Your task to perform on an android device: See recent photos Image 0: 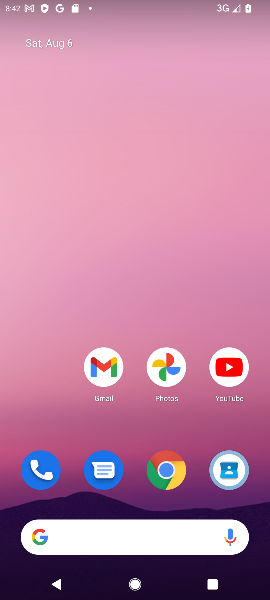
Step 0: drag from (115, 481) to (153, 36)
Your task to perform on an android device: See recent photos Image 1: 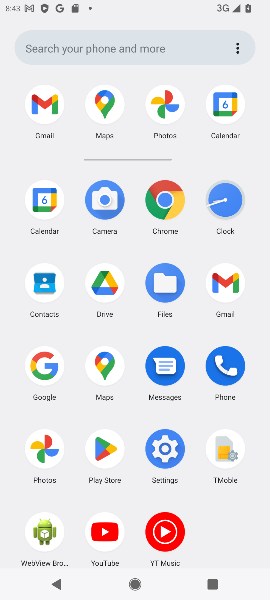
Step 1: click (42, 457)
Your task to perform on an android device: See recent photos Image 2: 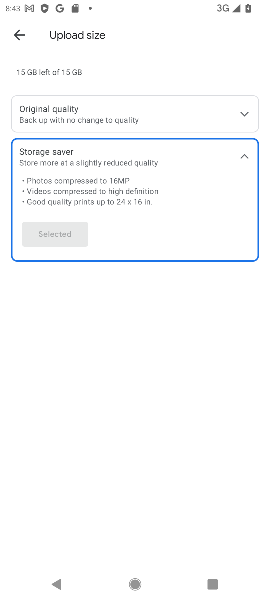
Step 2: click (24, 32)
Your task to perform on an android device: See recent photos Image 3: 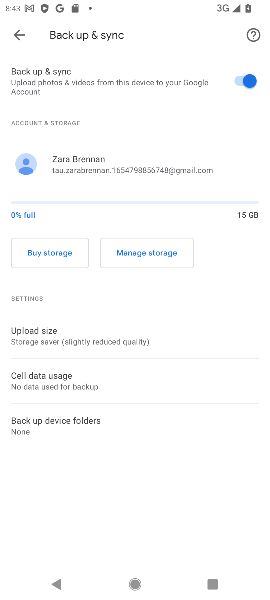
Step 3: click (23, 35)
Your task to perform on an android device: See recent photos Image 4: 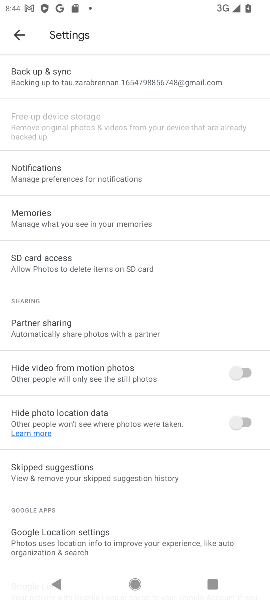
Step 4: click (22, 41)
Your task to perform on an android device: See recent photos Image 5: 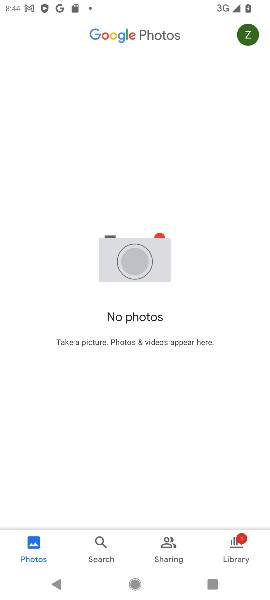
Step 5: task complete